Your task to perform on an android device: change the upload size in google photos Image 0: 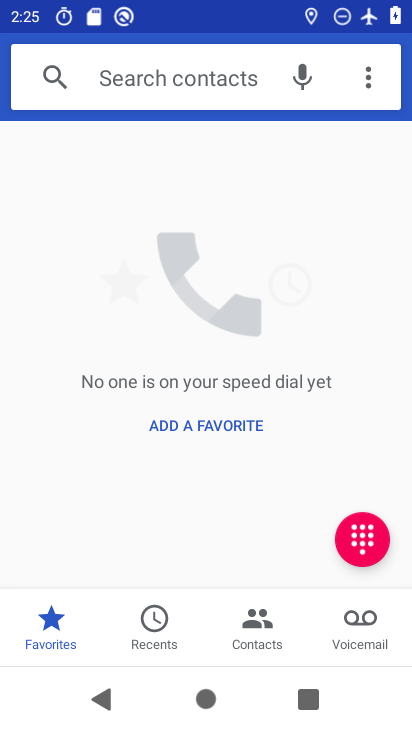
Step 0: press home button
Your task to perform on an android device: change the upload size in google photos Image 1: 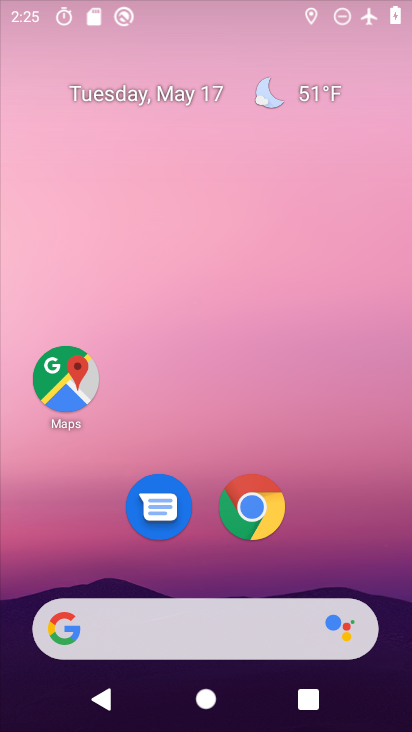
Step 1: drag from (224, 572) to (270, 70)
Your task to perform on an android device: change the upload size in google photos Image 2: 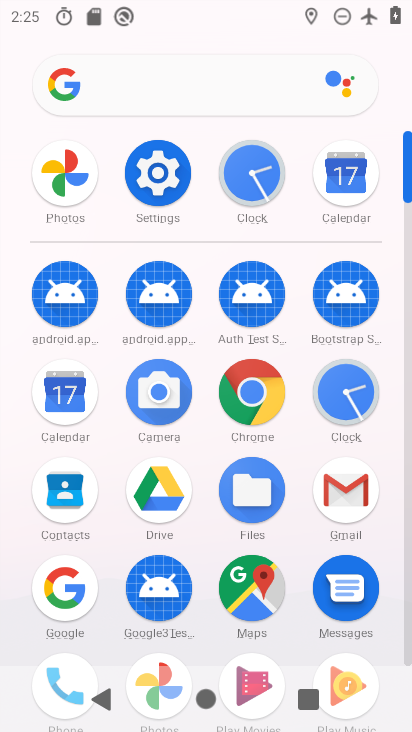
Step 2: click (75, 166)
Your task to perform on an android device: change the upload size in google photos Image 3: 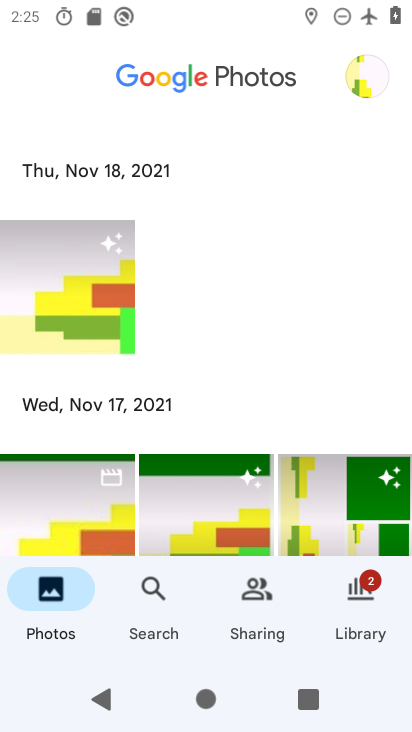
Step 3: click (365, 72)
Your task to perform on an android device: change the upload size in google photos Image 4: 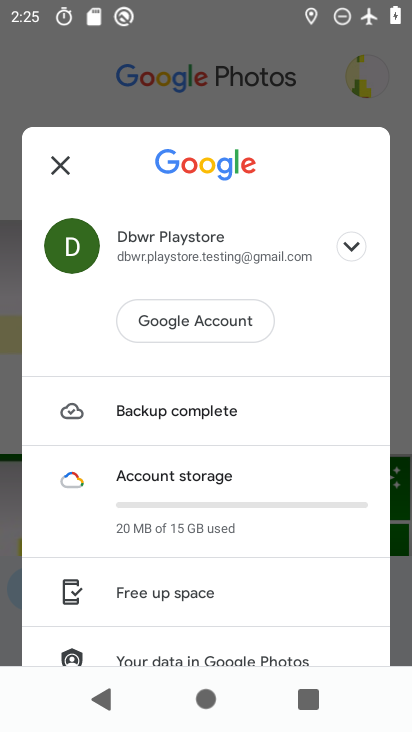
Step 4: drag from (267, 537) to (282, 218)
Your task to perform on an android device: change the upload size in google photos Image 5: 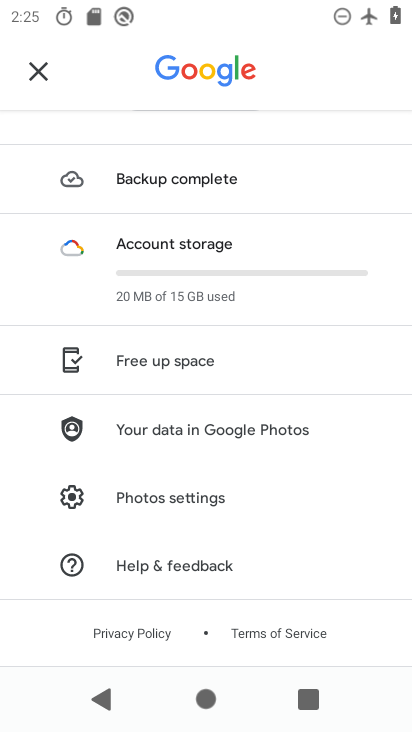
Step 5: click (177, 495)
Your task to perform on an android device: change the upload size in google photos Image 6: 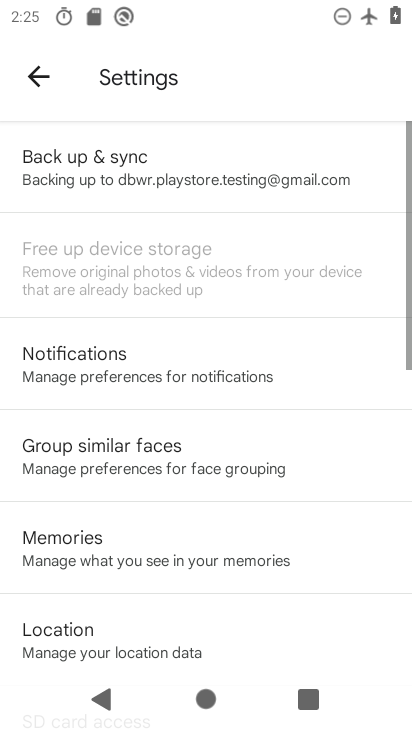
Step 6: click (145, 169)
Your task to perform on an android device: change the upload size in google photos Image 7: 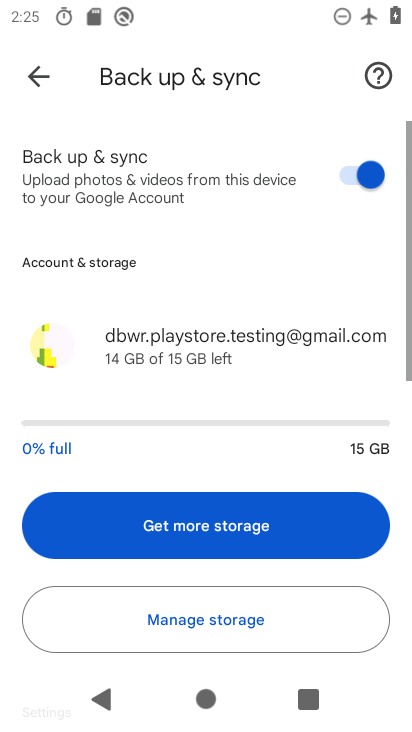
Step 7: drag from (206, 383) to (234, 66)
Your task to perform on an android device: change the upload size in google photos Image 8: 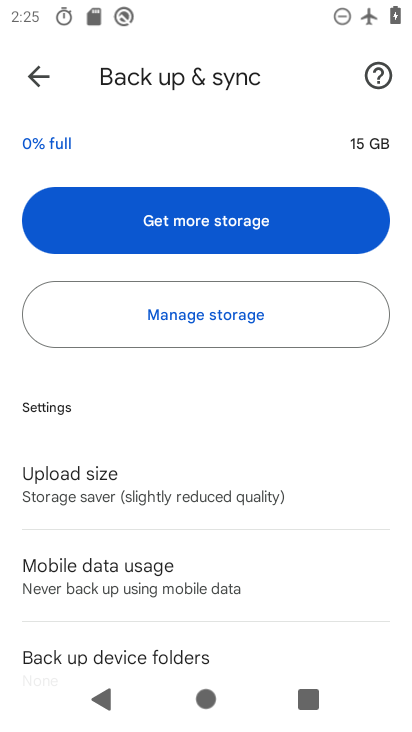
Step 8: click (94, 488)
Your task to perform on an android device: change the upload size in google photos Image 9: 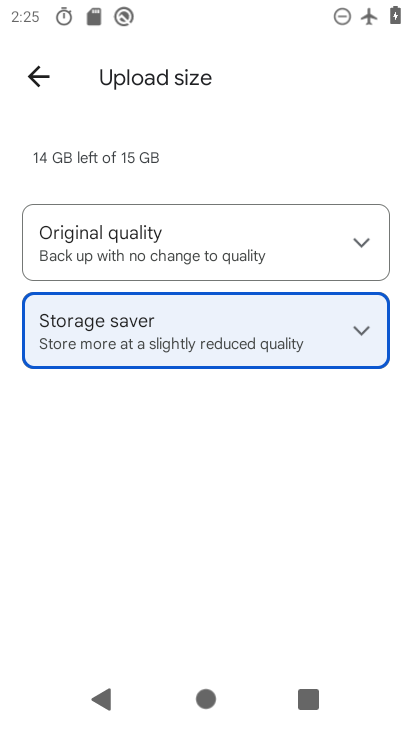
Step 9: click (116, 252)
Your task to perform on an android device: change the upload size in google photos Image 10: 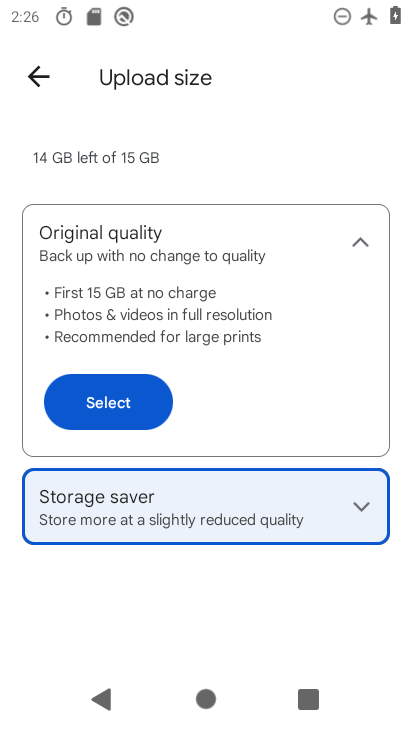
Step 10: click (107, 390)
Your task to perform on an android device: change the upload size in google photos Image 11: 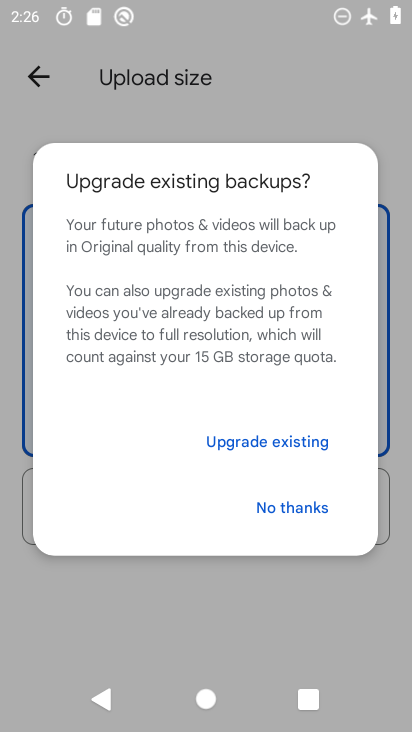
Step 11: click (293, 507)
Your task to perform on an android device: change the upload size in google photos Image 12: 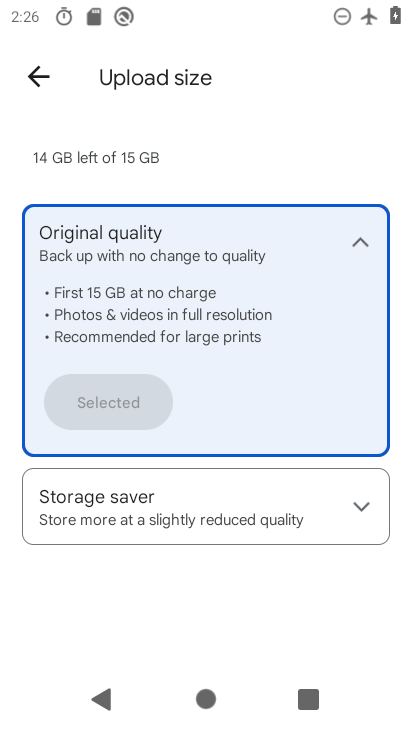
Step 12: task complete